Your task to perform on an android device: Open eBay Image 0: 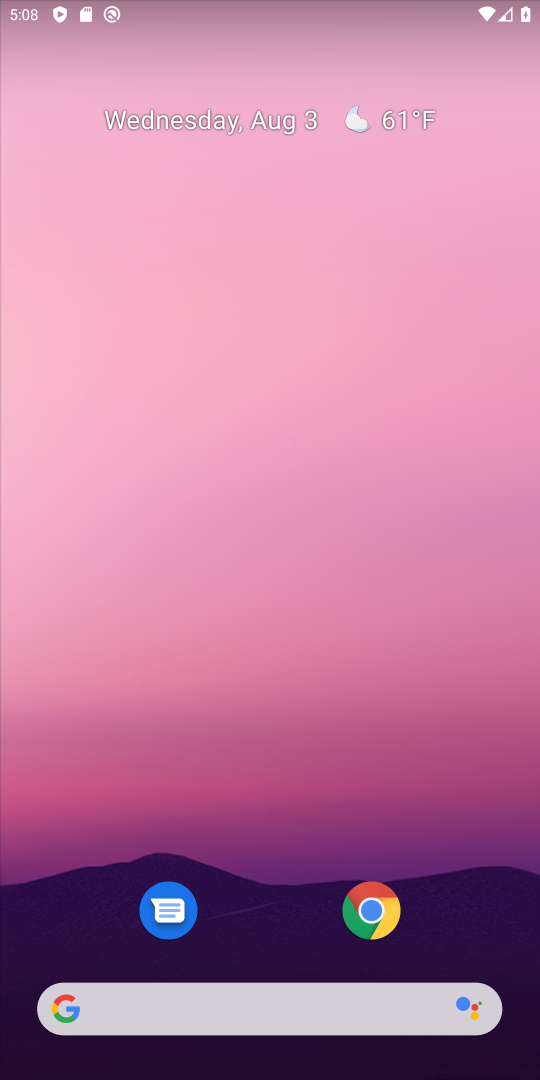
Step 0: drag from (231, 861) to (388, 142)
Your task to perform on an android device: Open eBay Image 1: 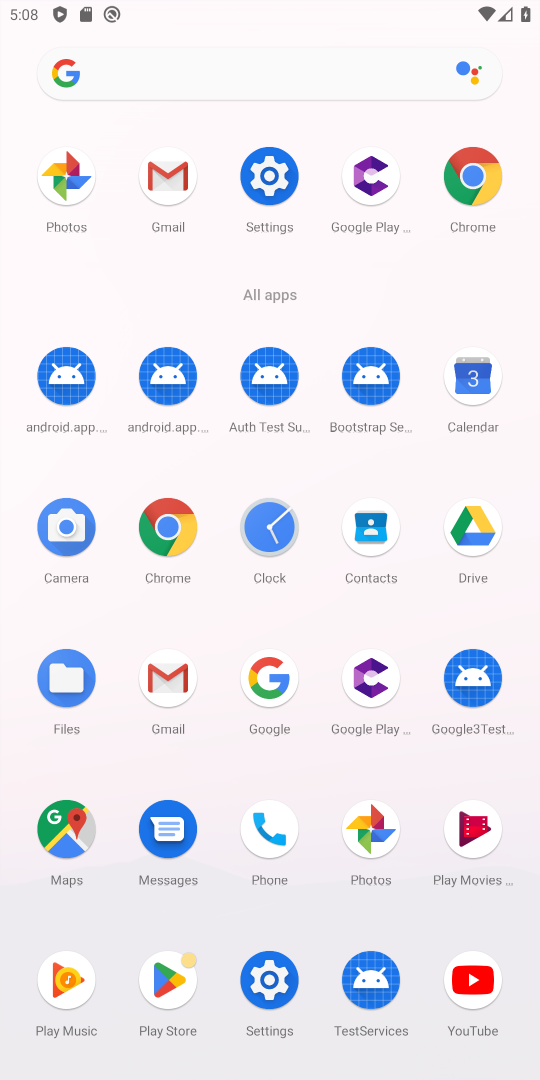
Step 1: click (169, 520)
Your task to perform on an android device: Open eBay Image 2: 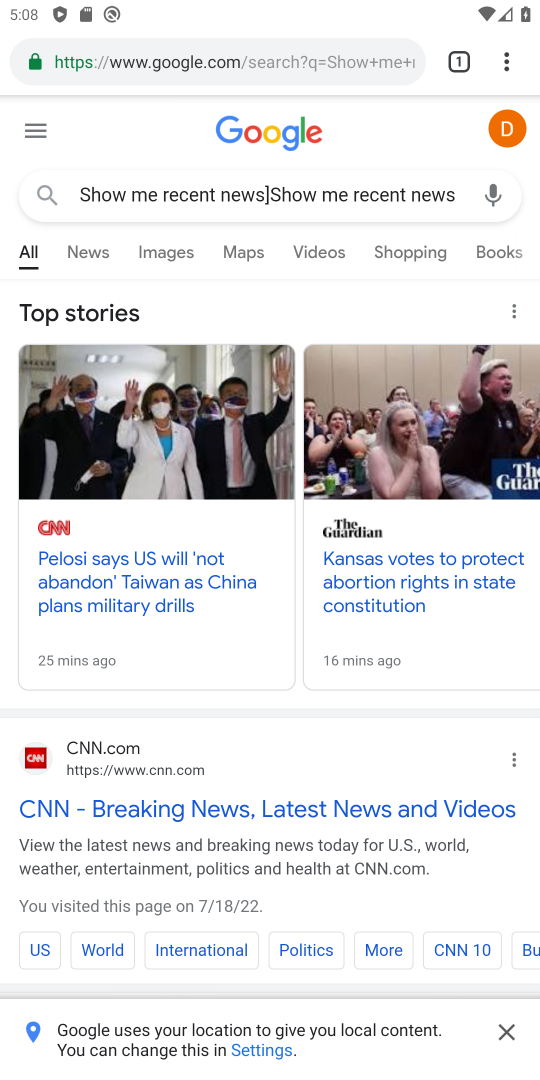
Step 2: click (326, 52)
Your task to perform on an android device: Open eBay Image 3: 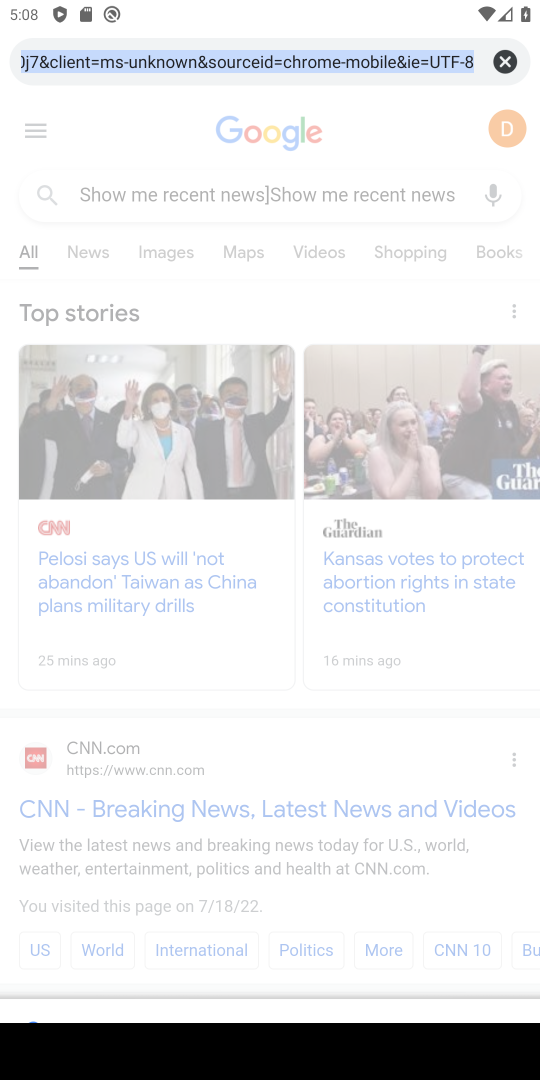
Step 3: click (501, 59)
Your task to perform on an android device: Open eBay Image 4: 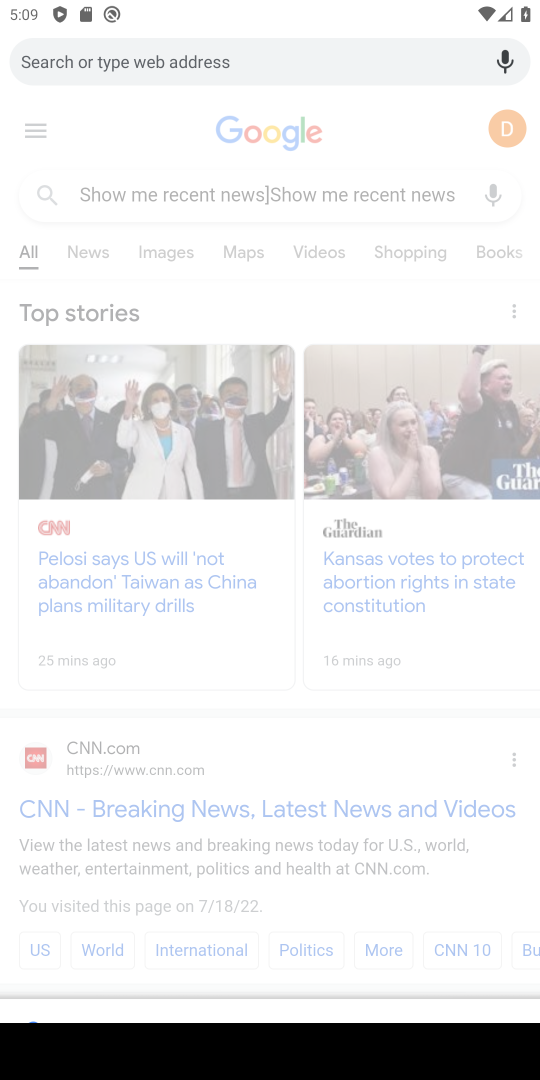
Step 4: type " eBay"
Your task to perform on an android device: Open eBay Image 5: 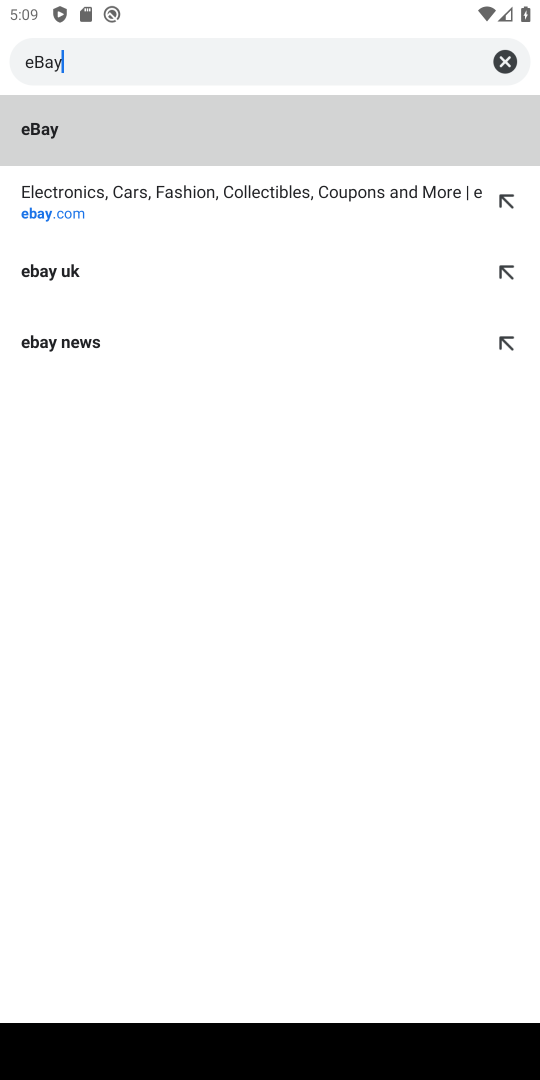
Step 5: type ""
Your task to perform on an android device: Open eBay Image 6: 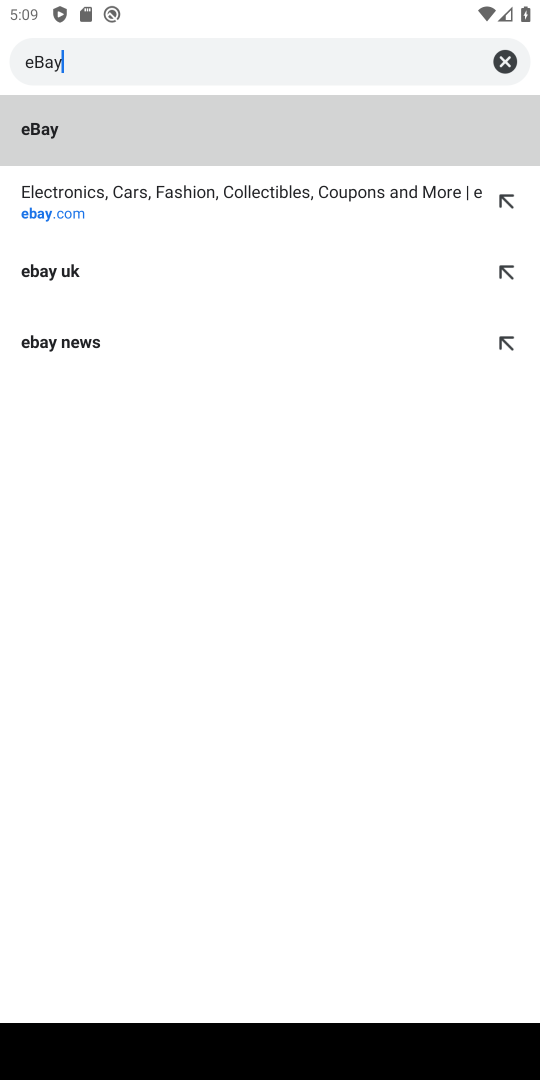
Step 6: click (34, 133)
Your task to perform on an android device: Open eBay Image 7: 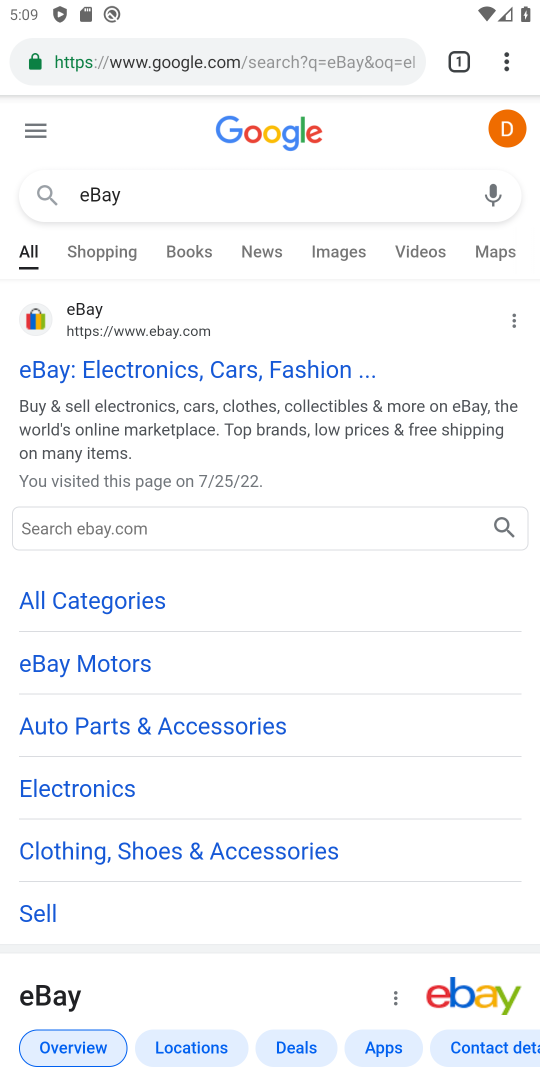
Step 7: click (177, 371)
Your task to perform on an android device: Open eBay Image 8: 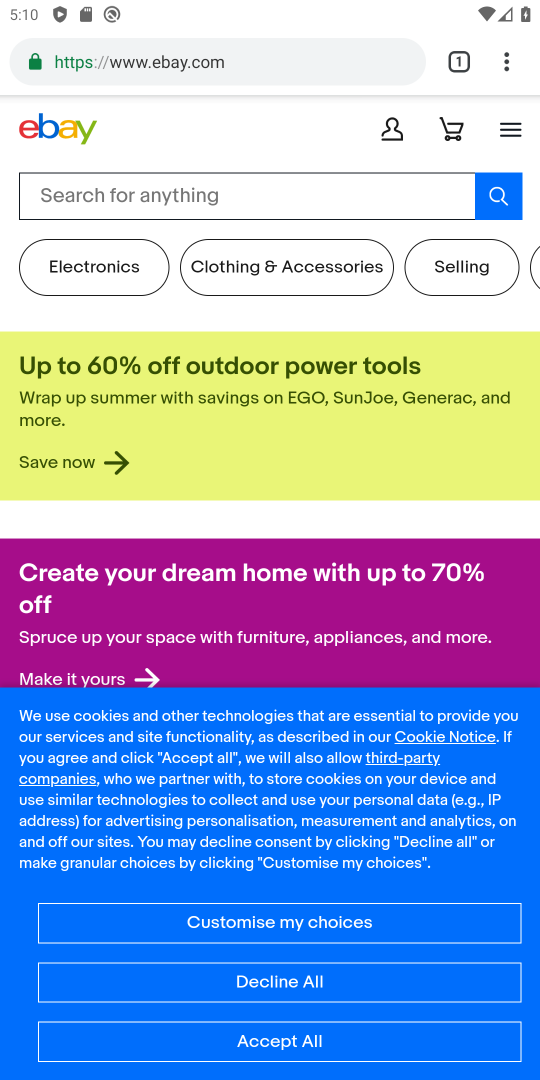
Step 8: task complete